Your task to perform on an android device: all mails in gmail Image 0: 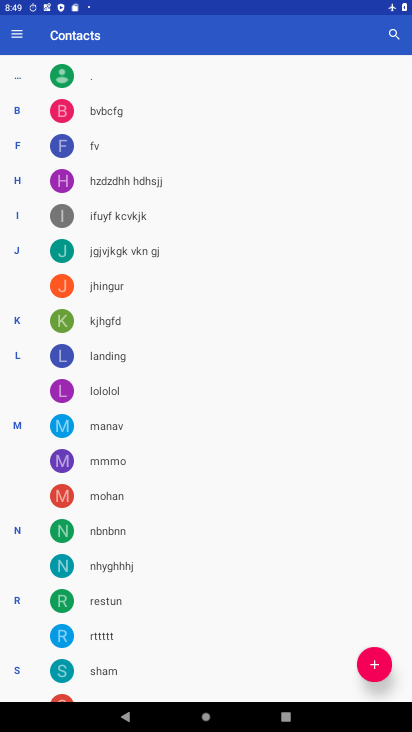
Step 0: press home button
Your task to perform on an android device: all mails in gmail Image 1: 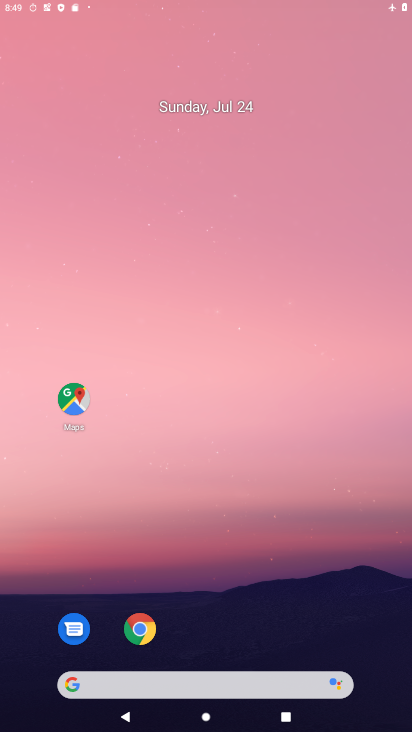
Step 1: drag from (186, 670) to (182, 75)
Your task to perform on an android device: all mails in gmail Image 2: 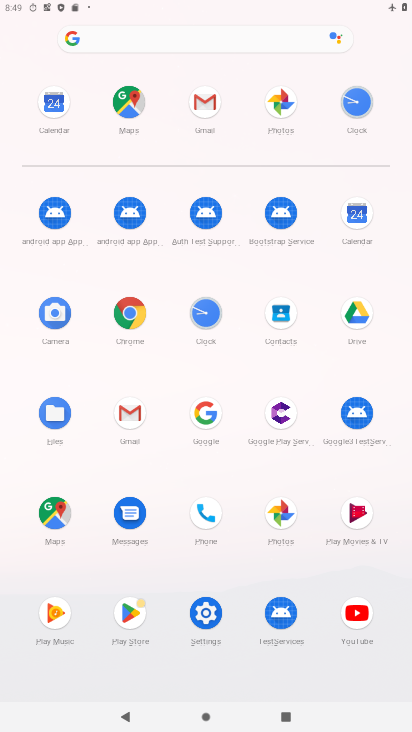
Step 2: click (128, 428)
Your task to perform on an android device: all mails in gmail Image 3: 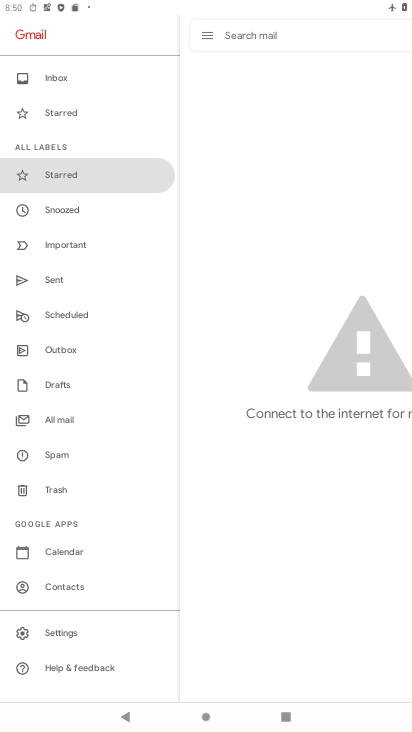
Step 3: click (79, 419)
Your task to perform on an android device: all mails in gmail Image 4: 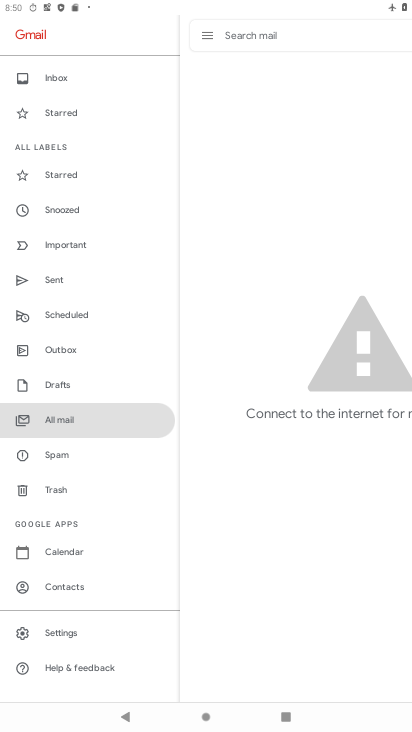
Step 4: task complete